Your task to perform on an android device: turn on the 24-hour format for clock Image 0: 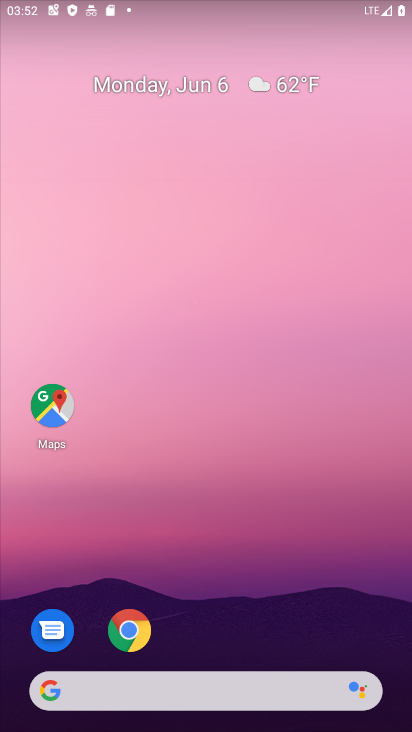
Step 0: drag from (339, 579) to (230, 75)
Your task to perform on an android device: turn on the 24-hour format for clock Image 1: 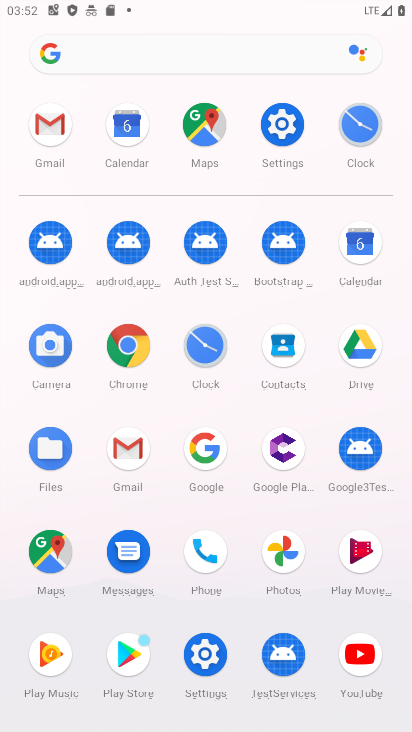
Step 1: click (296, 120)
Your task to perform on an android device: turn on the 24-hour format for clock Image 2: 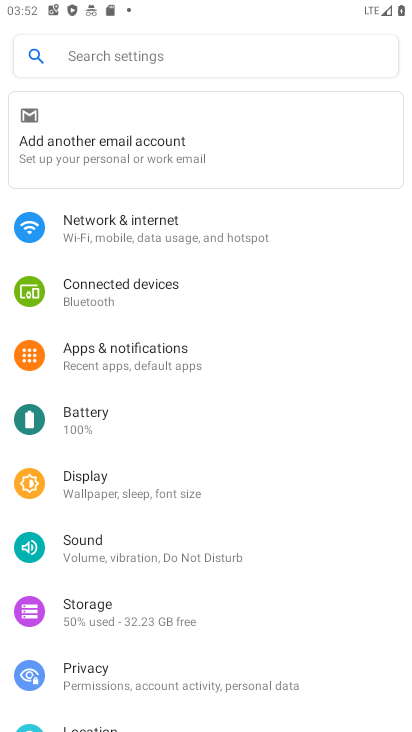
Step 2: press home button
Your task to perform on an android device: turn on the 24-hour format for clock Image 3: 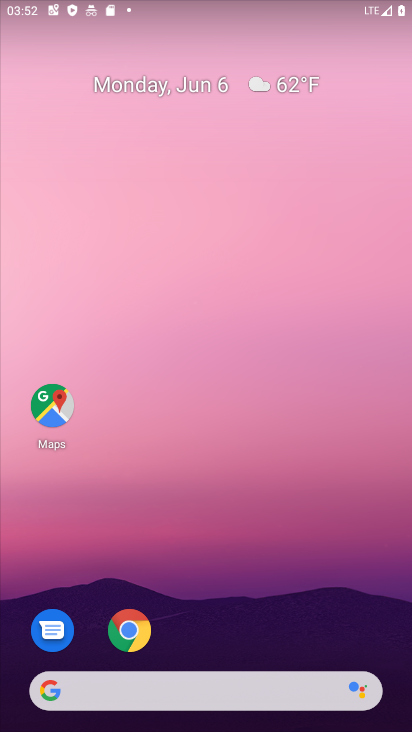
Step 3: drag from (242, 512) to (300, 4)
Your task to perform on an android device: turn on the 24-hour format for clock Image 4: 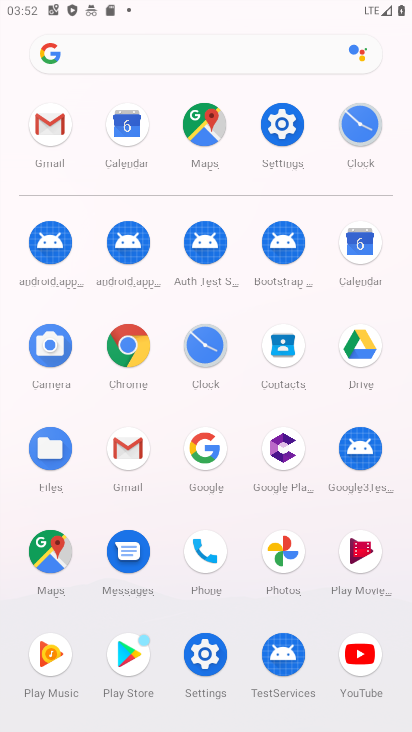
Step 4: click (284, 139)
Your task to perform on an android device: turn on the 24-hour format for clock Image 5: 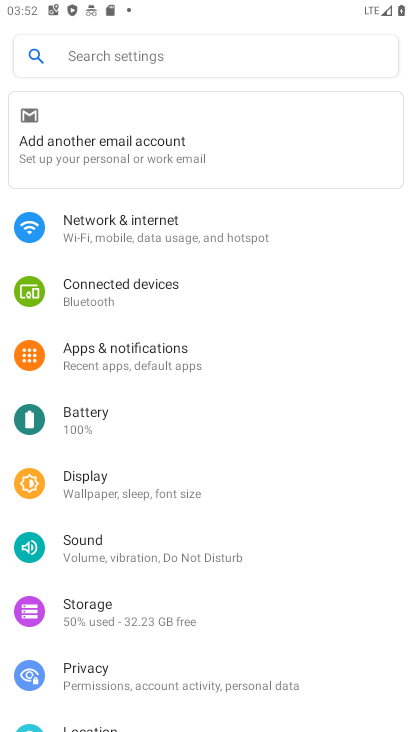
Step 5: press home button
Your task to perform on an android device: turn on the 24-hour format for clock Image 6: 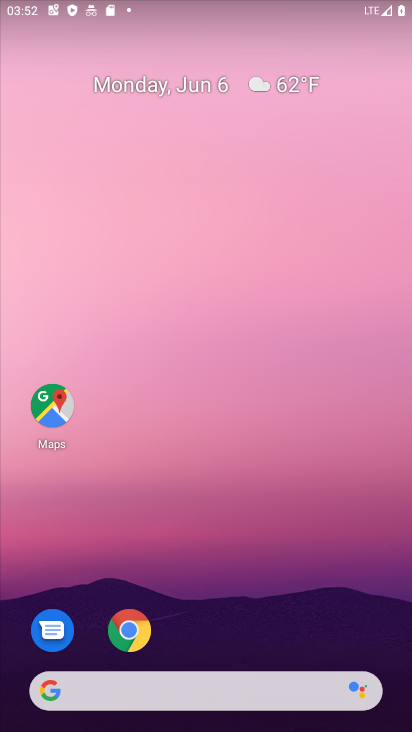
Step 6: drag from (378, 614) to (272, 0)
Your task to perform on an android device: turn on the 24-hour format for clock Image 7: 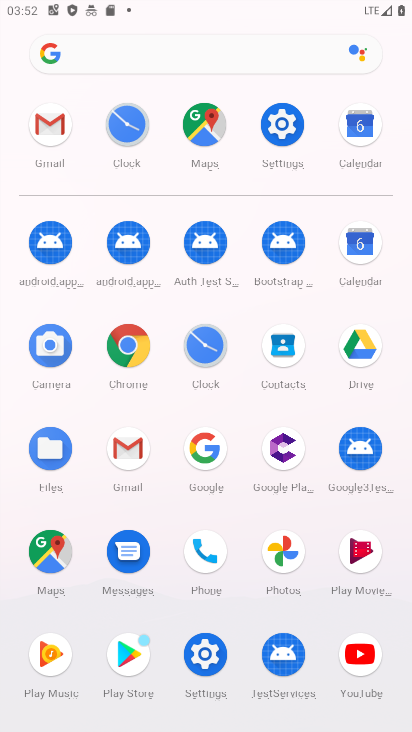
Step 7: click (220, 337)
Your task to perform on an android device: turn on the 24-hour format for clock Image 8: 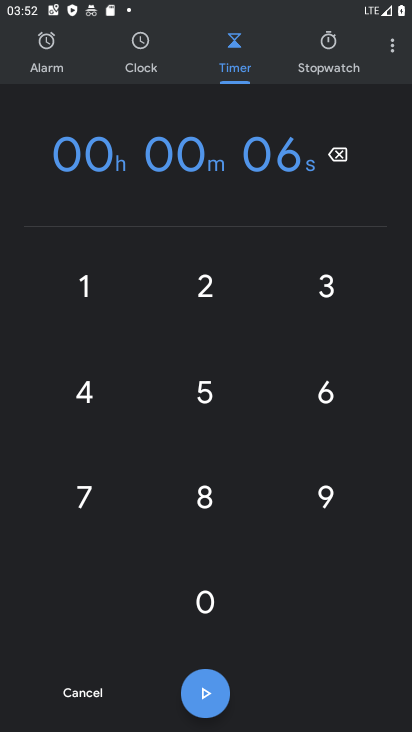
Step 8: click (399, 44)
Your task to perform on an android device: turn on the 24-hour format for clock Image 9: 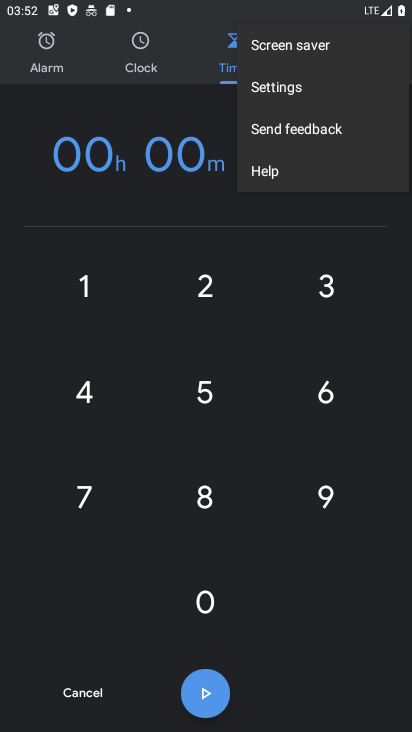
Step 9: click (320, 93)
Your task to perform on an android device: turn on the 24-hour format for clock Image 10: 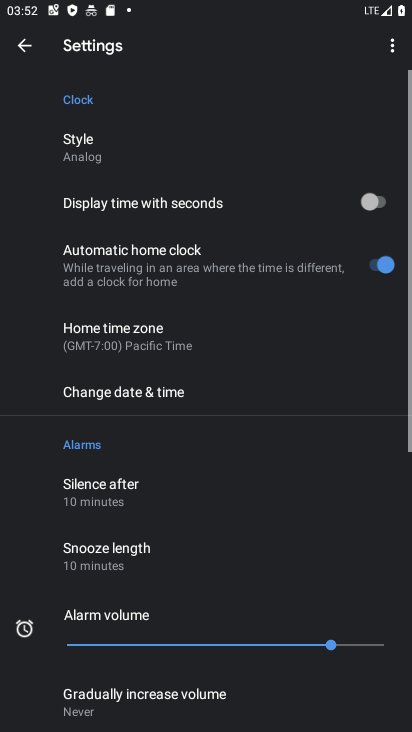
Step 10: click (163, 388)
Your task to perform on an android device: turn on the 24-hour format for clock Image 11: 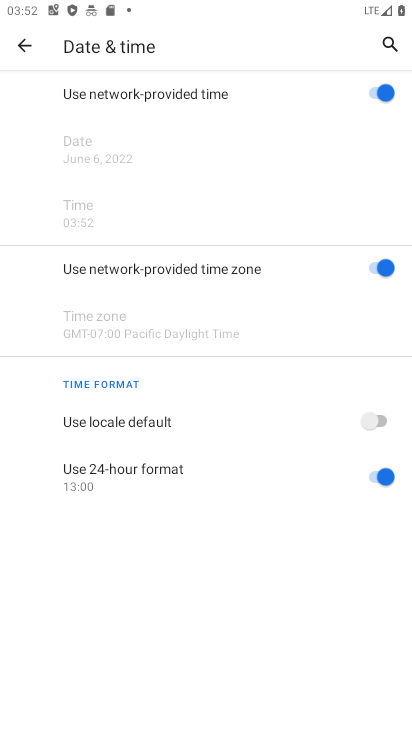
Step 11: task complete